Your task to perform on an android device: check storage Image 0: 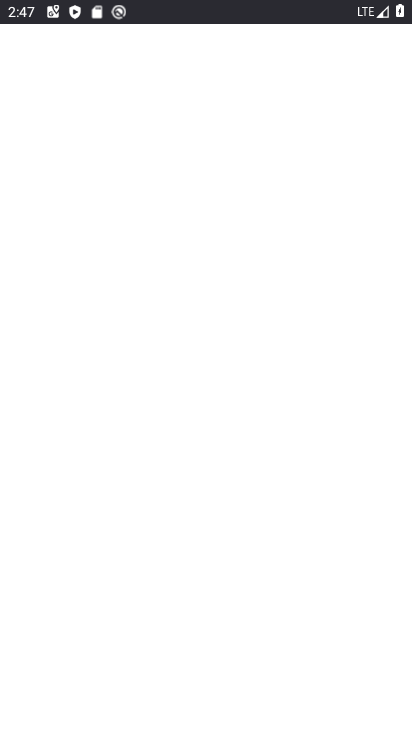
Step 0: drag from (193, 606) to (191, 487)
Your task to perform on an android device: check storage Image 1: 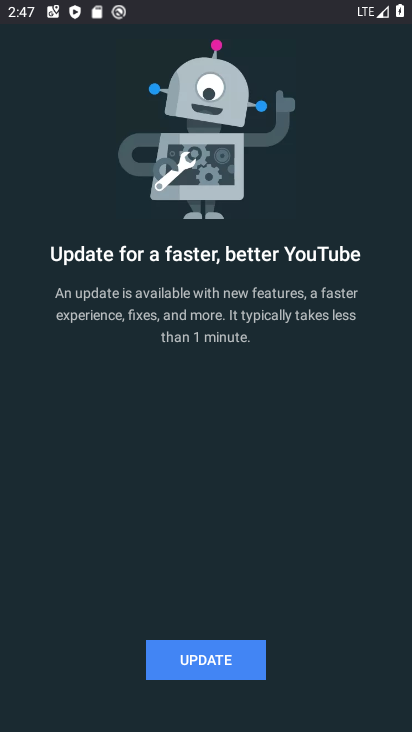
Step 1: press home button
Your task to perform on an android device: check storage Image 2: 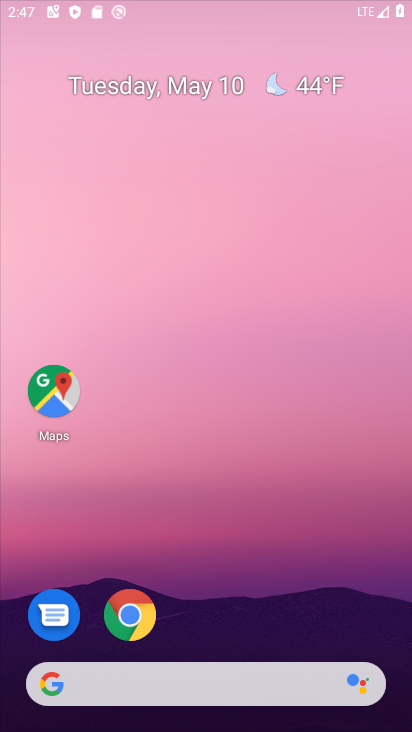
Step 2: drag from (338, 611) to (308, 2)
Your task to perform on an android device: check storage Image 3: 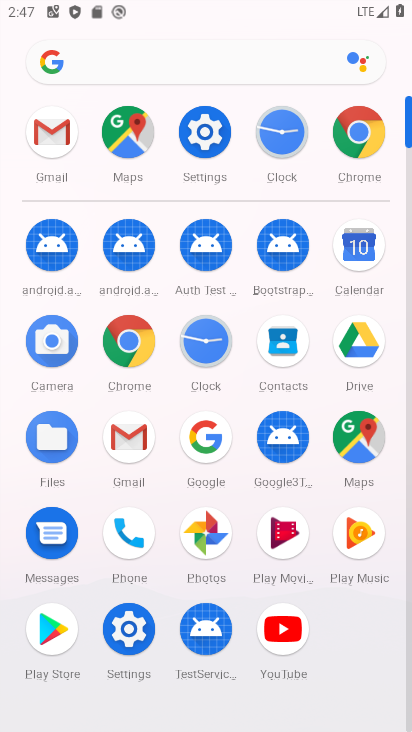
Step 3: click (222, 137)
Your task to perform on an android device: check storage Image 4: 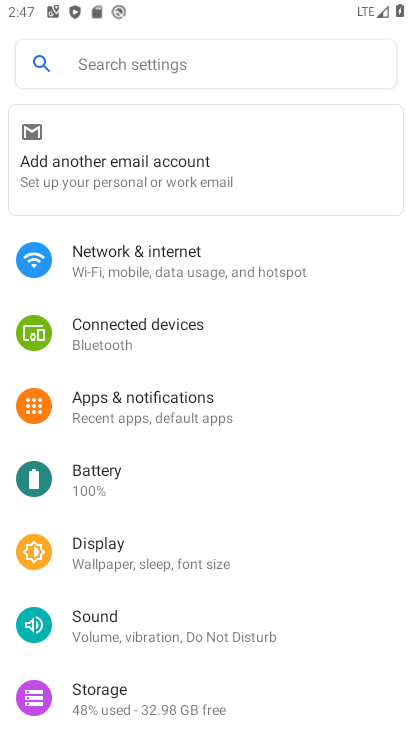
Step 4: click (94, 686)
Your task to perform on an android device: check storage Image 5: 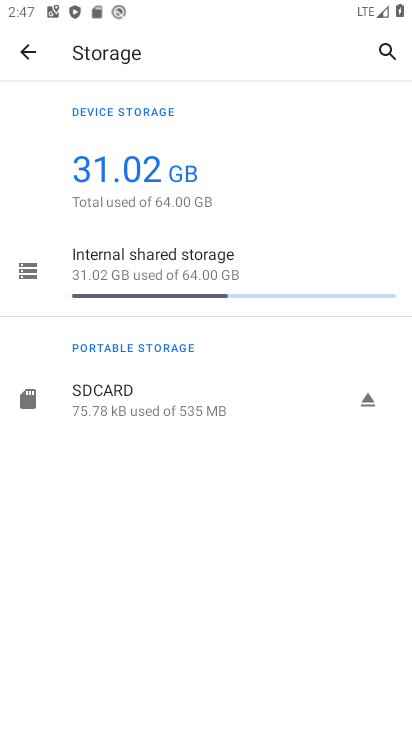
Step 5: task complete